Your task to perform on an android device: add a contact in the contacts app Image 0: 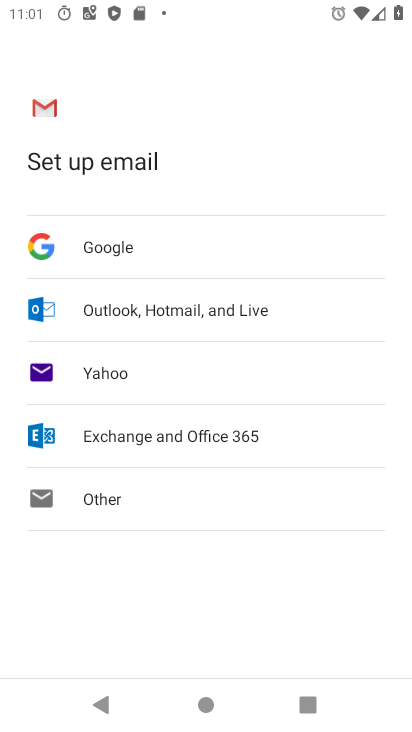
Step 0: press back button
Your task to perform on an android device: add a contact in the contacts app Image 1: 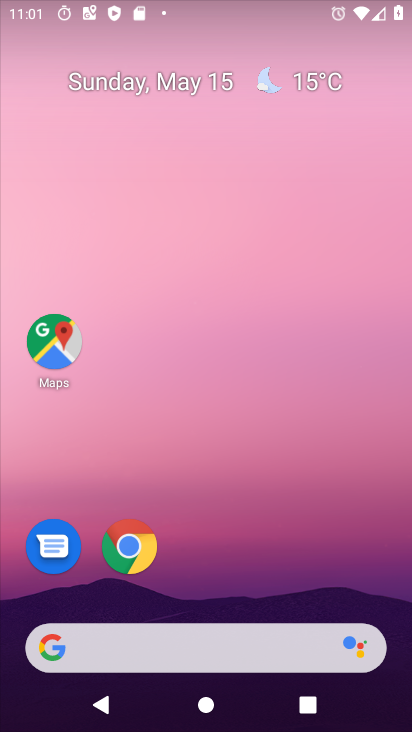
Step 1: drag from (289, 607) to (167, 46)
Your task to perform on an android device: add a contact in the contacts app Image 2: 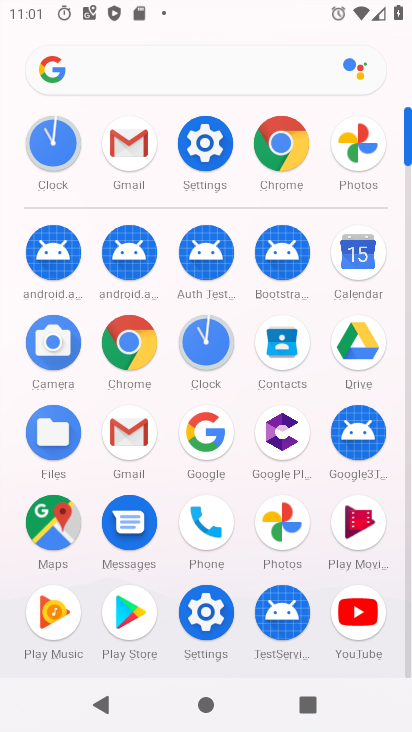
Step 2: click (283, 345)
Your task to perform on an android device: add a contact in the contacts app Image 3: 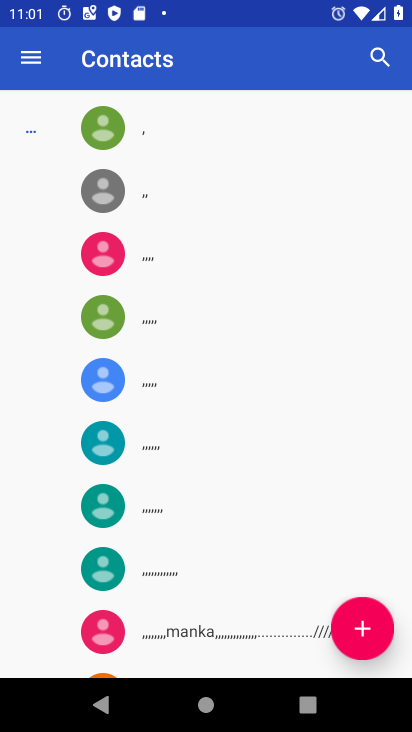
Step 3: click (362, 612)
Your task to perform on an android device: add a contact in the contacts app Image 4: 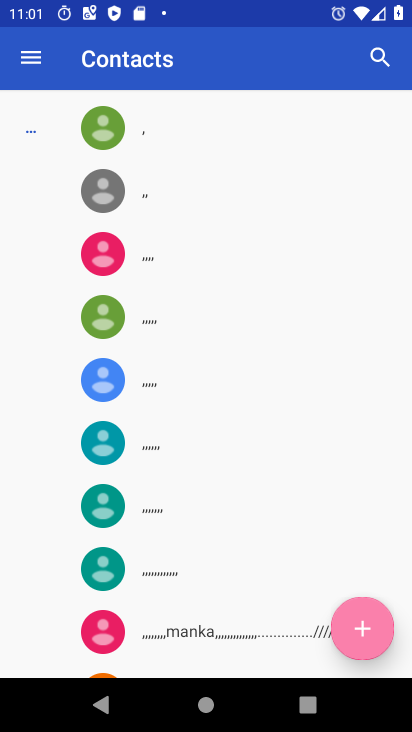
Step 4: click (361, 615)
Your task to perform on an android device: add a contact in the contacts app Image 5: 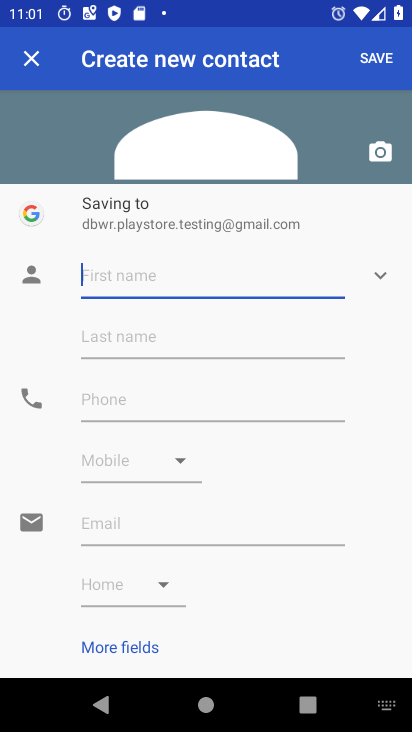
Step 5: type "gdhasahcciudhcjh"
Your task to perform on an android device: add a contact in the contacts app Image 6: 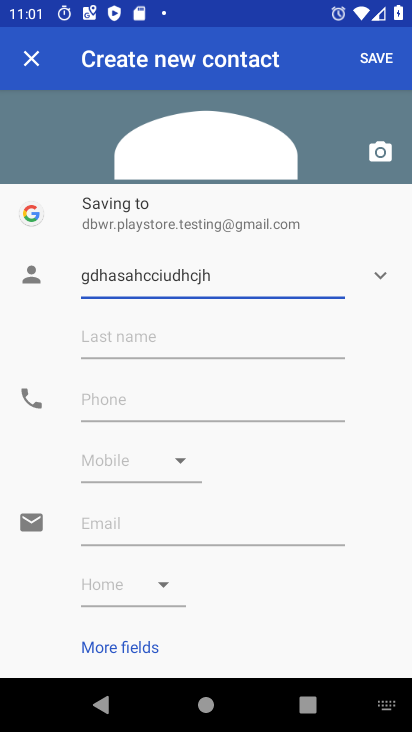
Step 6: click (103, 409)
Your task to perform on an android device: add a contact in the contacts app Image 7: 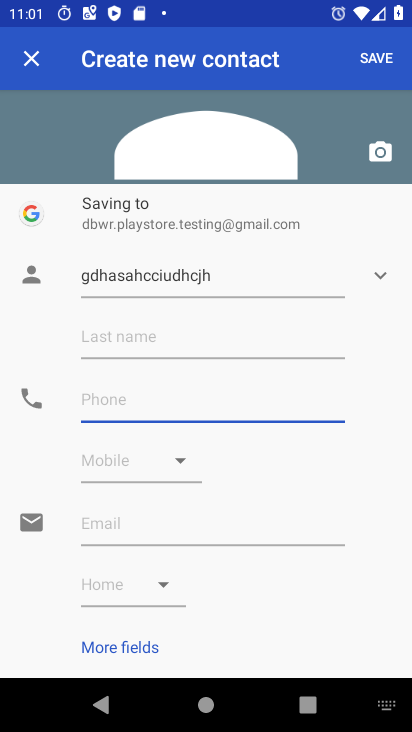
Step 7: type "879878943875090"
Your task to perform on an android device: add a contact in the contacts app Image 8: 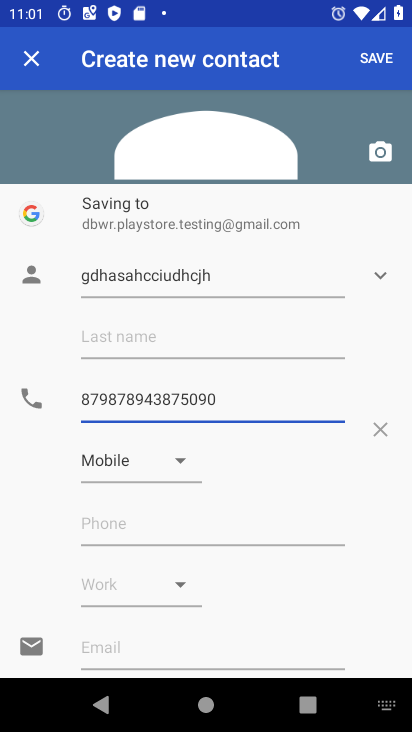
Step 8: click (372, 42)
Your task to perform on an android device: add a contact in the contacts app Image 9: 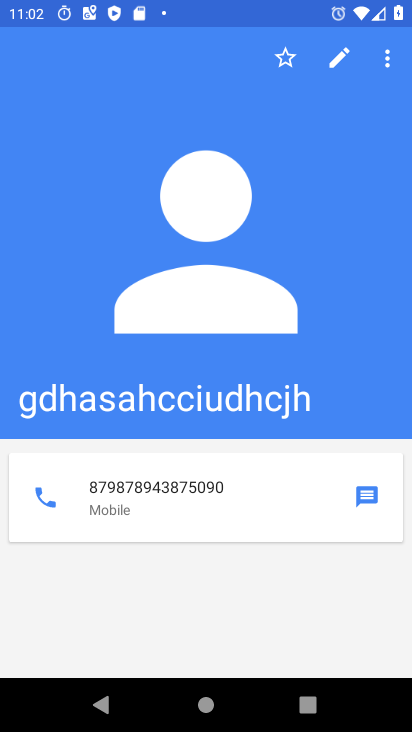
Step 9: task complete